Your task to perform on an android device: Search for "sony triple a" on bestbuy.com, select the first entry, add it to the cart, then select checkout. Image 0: 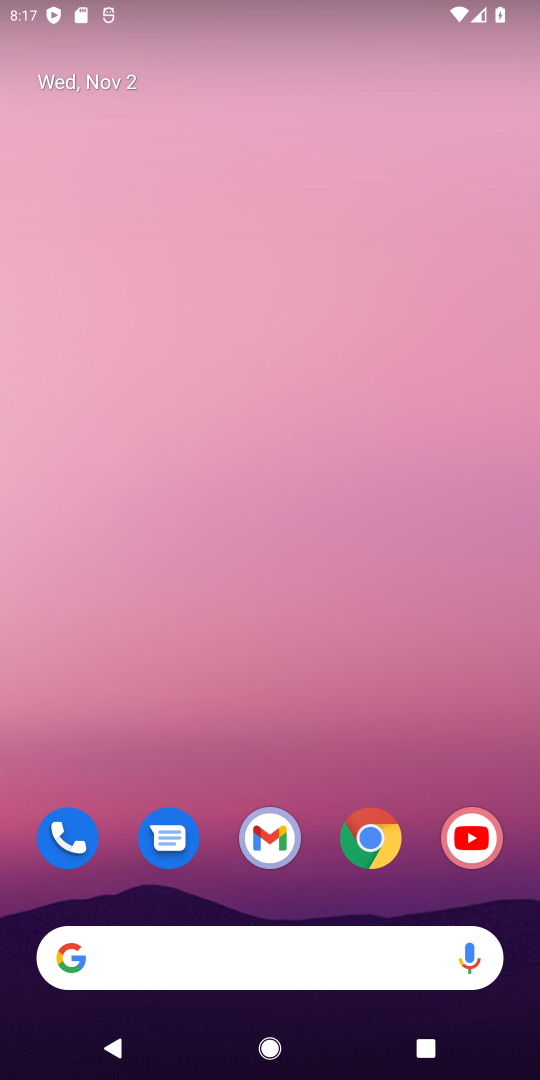
Step 0: click (384, 847)
Your task to perform on an android device: Search for "sony triple a" on bestbuy.com, select the first entry, add it to the cart, then select checkout. Image 1: 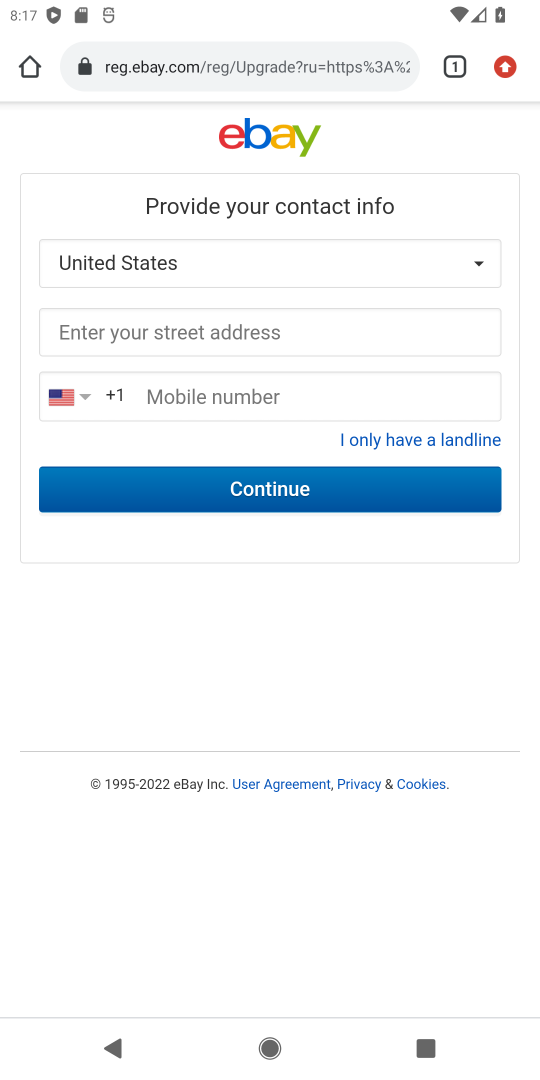
Step 1: click (321, 63)
Your task to perform on an android device: Search for "sony triple a" on bestbuy.com, select the first entry, add it to the cart, then select checkout. Image 2: 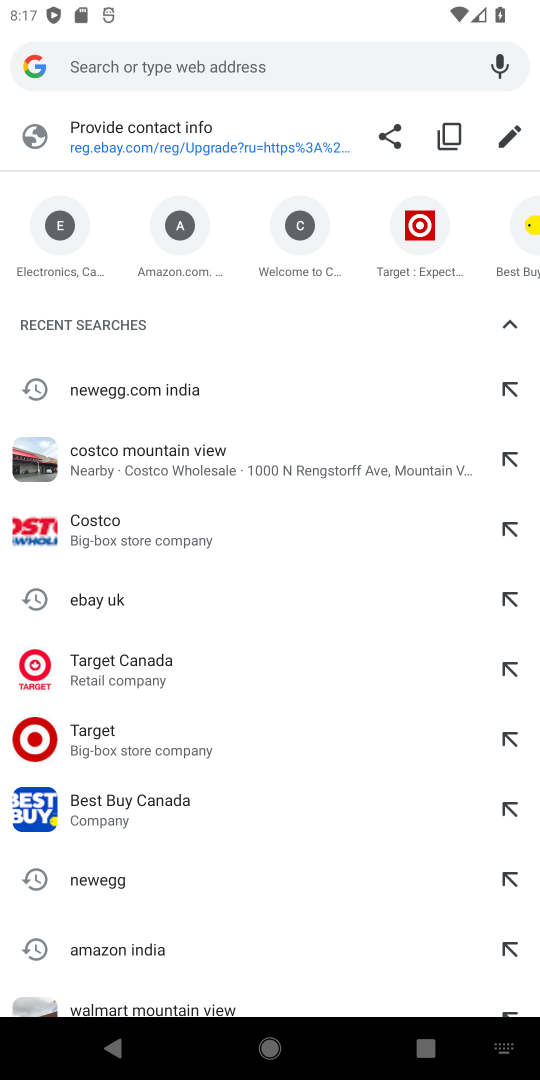
Step 2: type "bestbuy.com"
Your task to perform on an android device: Search for "sony triple a" on bestbuy.com, select the first entry, add it to the cart, then select checkout. Image 3: 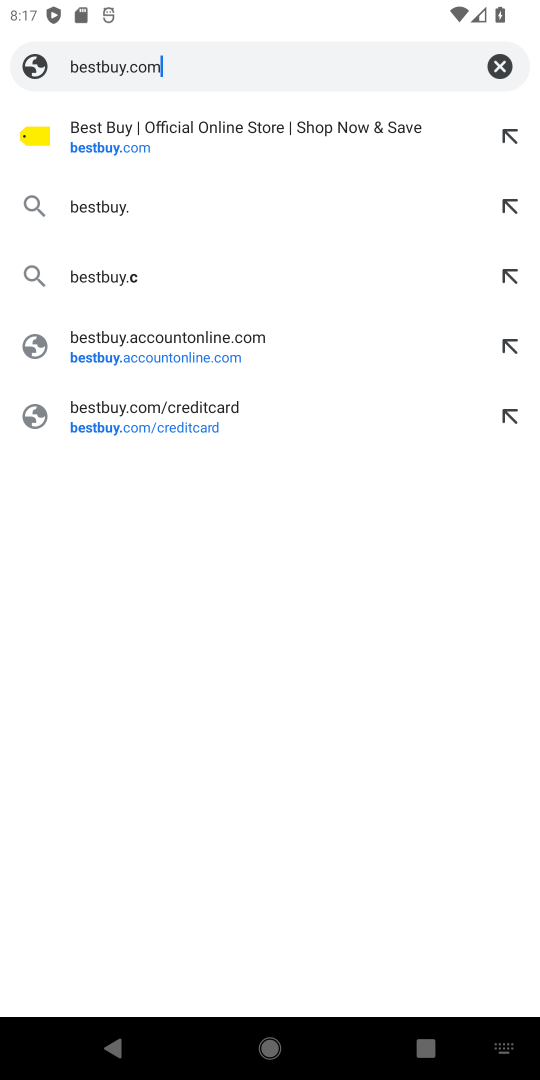
Step 3: type ""
Your task to perform on an android device: Search for "sony triple a" on bestbuy.com, select the first entry, add it to the cart, then select checkout. Image 4: 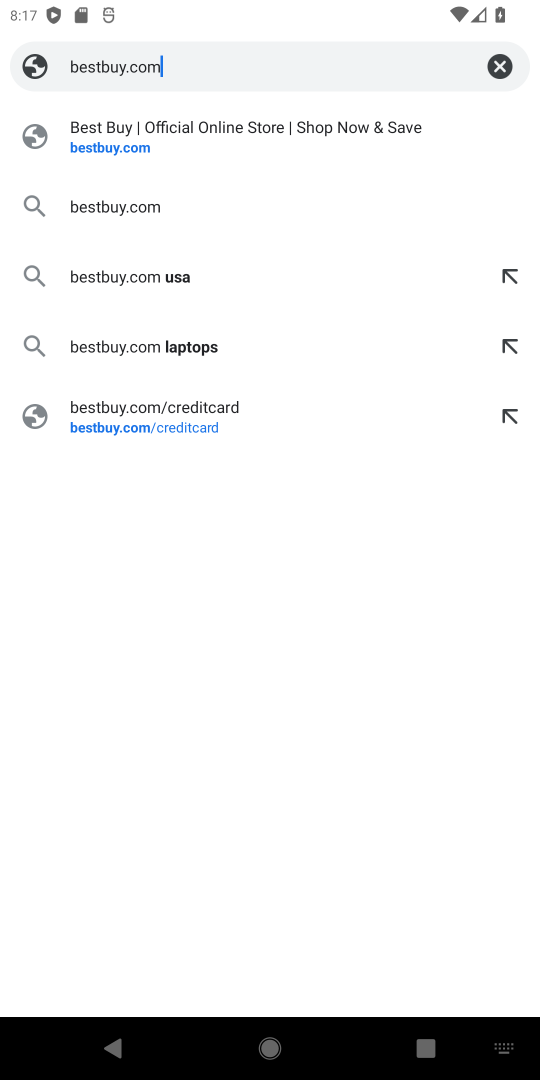
Step 4: press enter
Your task to perform on an android device: Search for "sony triple a" on bestbuy.com, select the first entry, add it to the cart, then select checkout. Image 5: 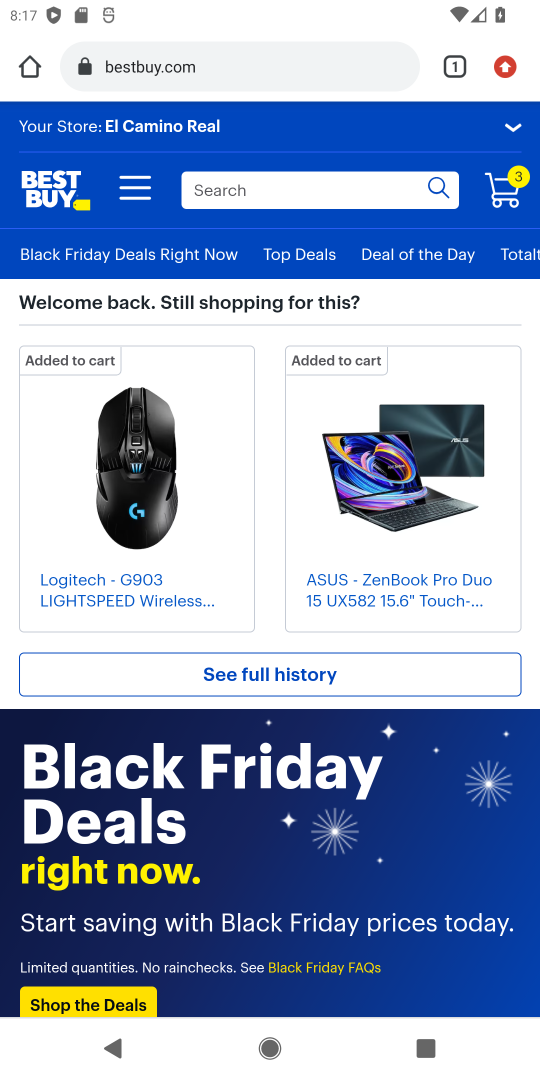
Step 5: click (313, 184)
Your task to perform on an android device: Search for "sony triple a" on bestbuy.com, select the first entry, add it to the cart, then select checkout. Image 6: 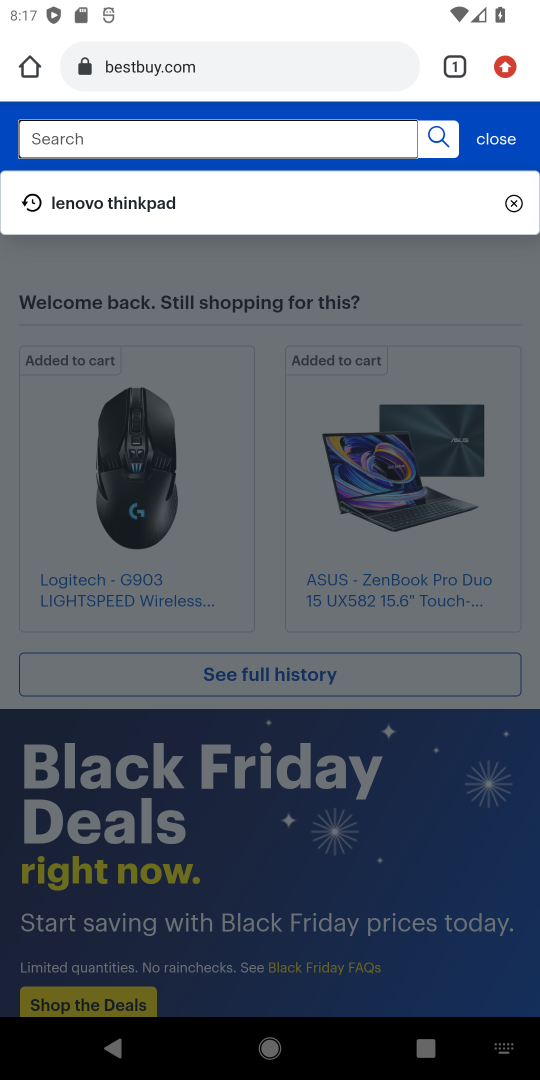
Step 6: type "sony triple a"
Your task to perform on an android device: Search for "sony triple a" on bestbuy.com, select the first entry, add it to the cart, then select checkout. Image 7: 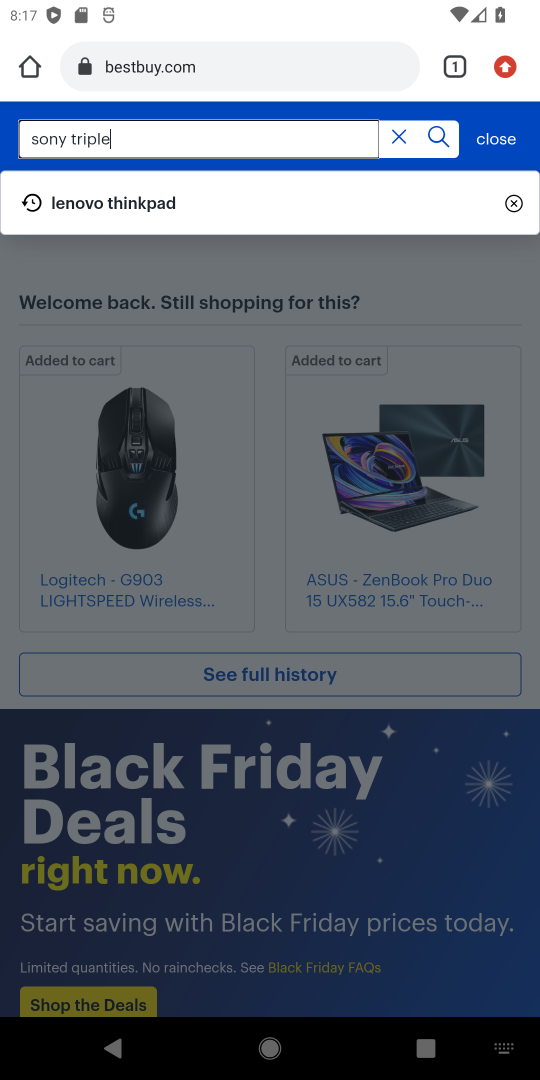
Step 7: type ""
Your task to perform on an android device: Search for "sony triple a" on bestbuy.com, select the first entry, add it to the cart, then select checkout. Image 8: 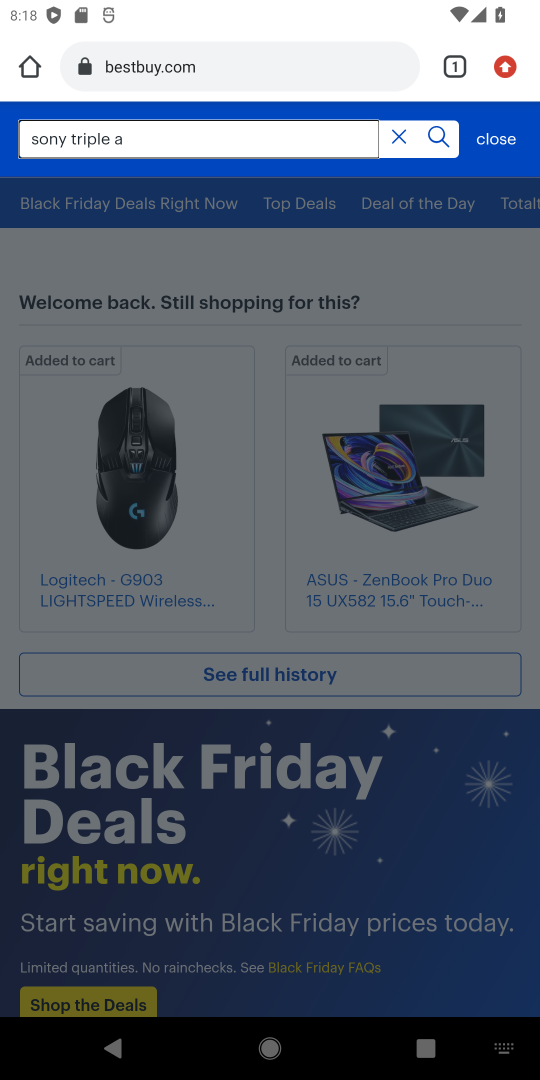
Step 8: press enter
Your task to perform on an android device: Search for "sony triple a" on bestbuy.com, select the first entry, add it to the cart, then select checkout. Image 9: 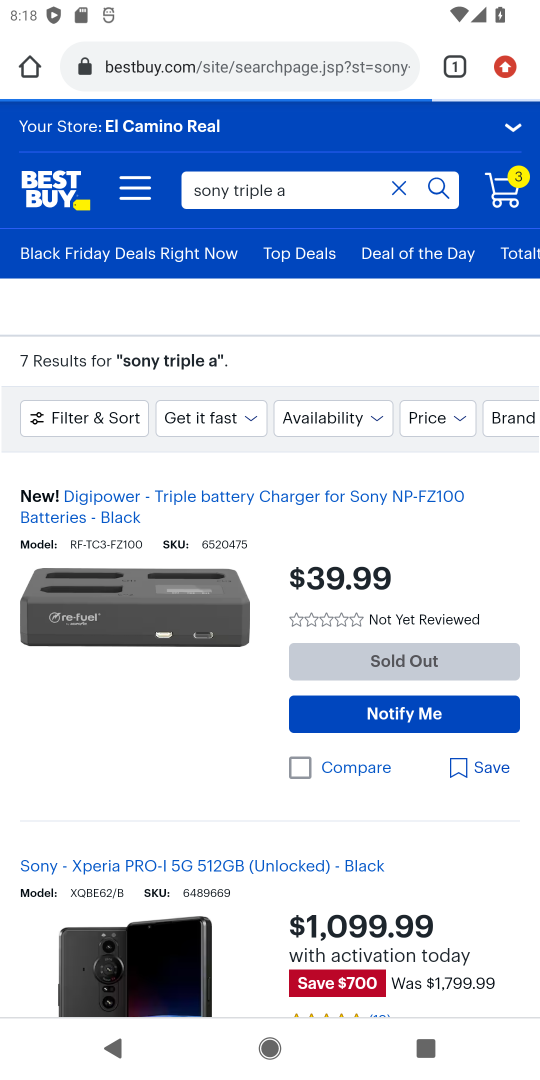
Step 9: drag from (301, 852) to (313, 760)
Your task to perform on an android device: Search for "sony triple a" on bestbuy.com, select the first entry, add it to the cart, then select checkout. Image 10: 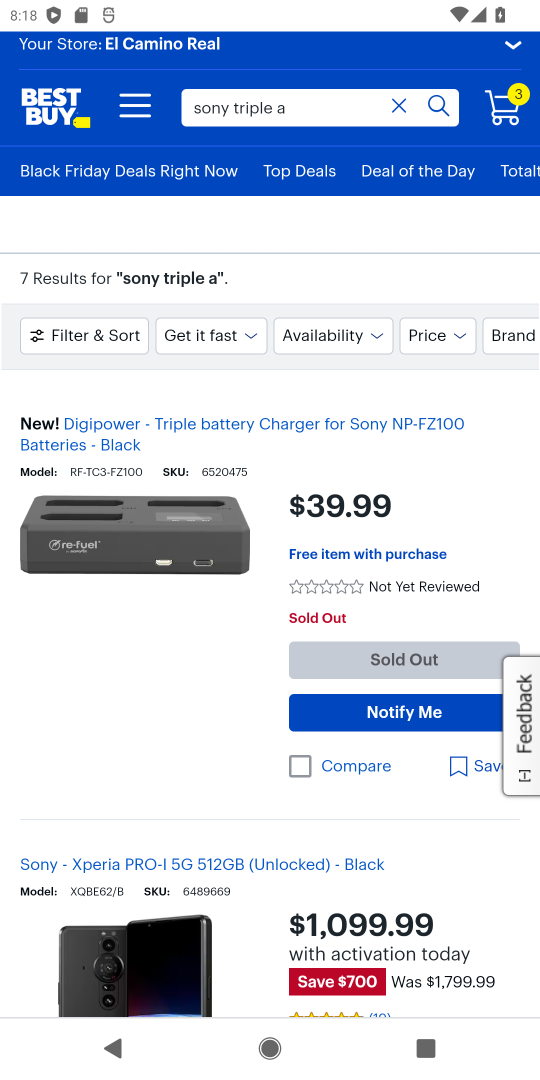
Step 10: drag from (349, 917) to (316, 695)
Your task to perform on an android device: Search for "sony triple a" on bestbuy.com, select the first entry, add it to the cart, then select checkout. Image 11: 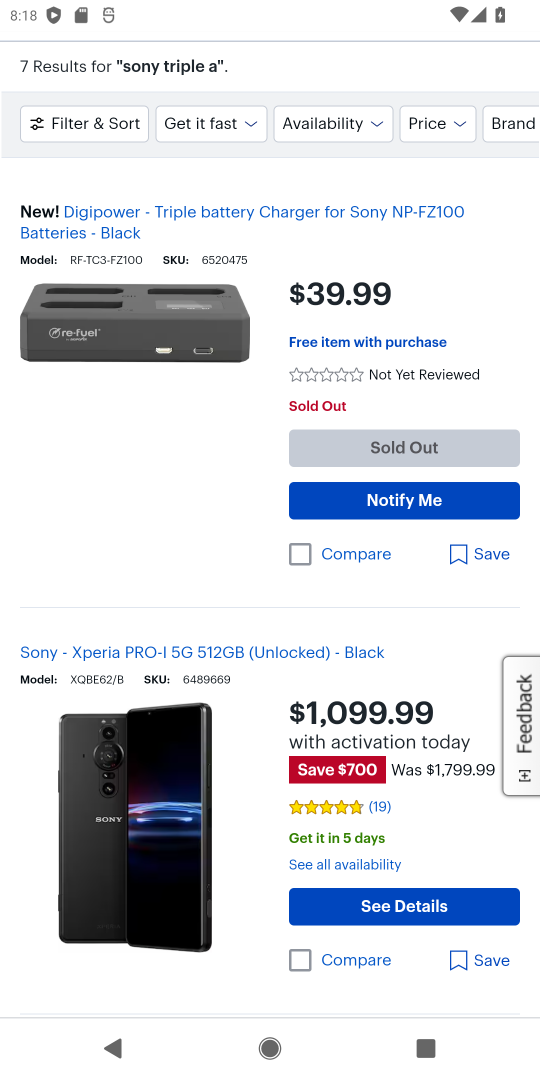
Step 11: drag from (384, 555) to (386, 676)
Your task to perform on an android device: Search for "sony triple a" on bestbuy.com, select the first entry, add it to the cart, then select checkout. Image 12: 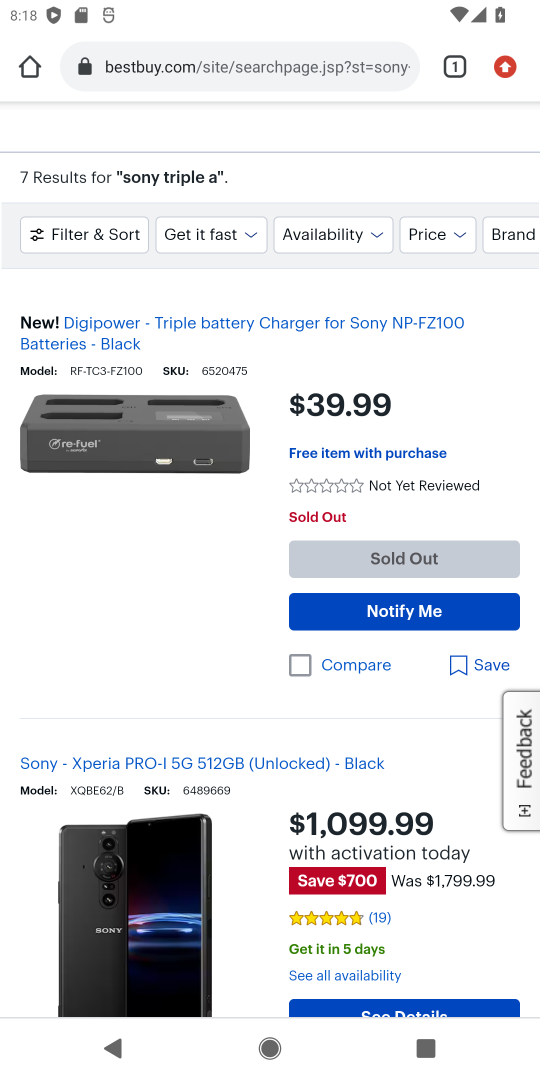
Step 12: click (339, 329)
Your task to perform on an android device: Search for "sony triple a" on bestbuy.com, select the first entry, add it to the cart, then select checkout. Image 13: 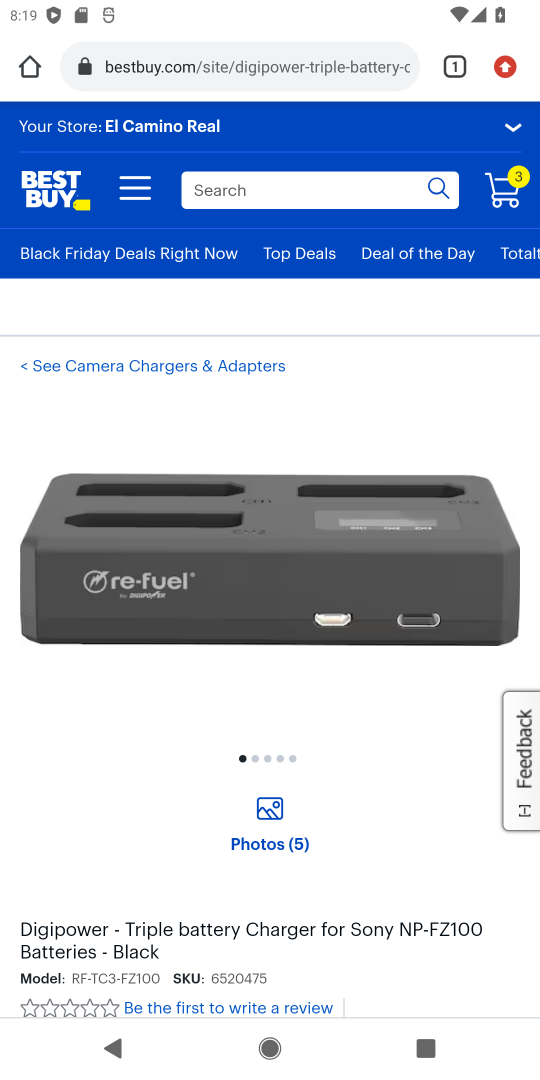
Step 13: task complete